Your task to perform on an android device: Open Google Chrome and open the bookmarks view Image 0: 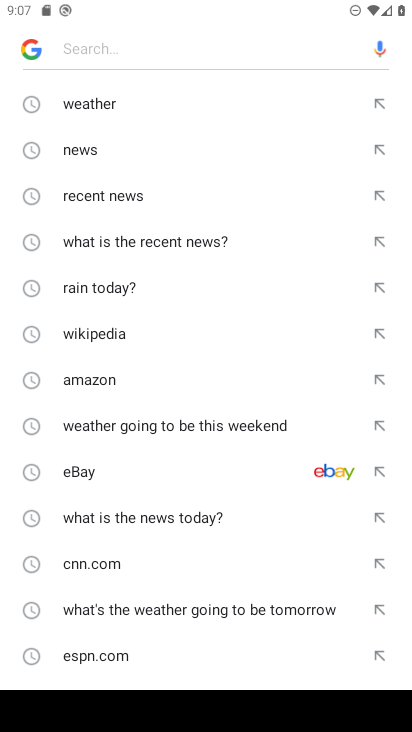
Step 0: press home button
Your task to perform on an android device: Open Google Chrome and open the bookmarks view Image 1: 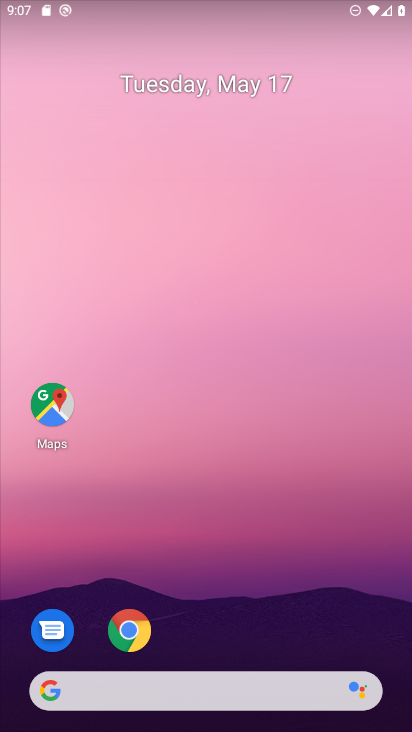
Step 1: drag from (340, 619) to (338, 167)
Your task to perform on an android device: Open Google Chrome and open the bookmarks view Image 2: 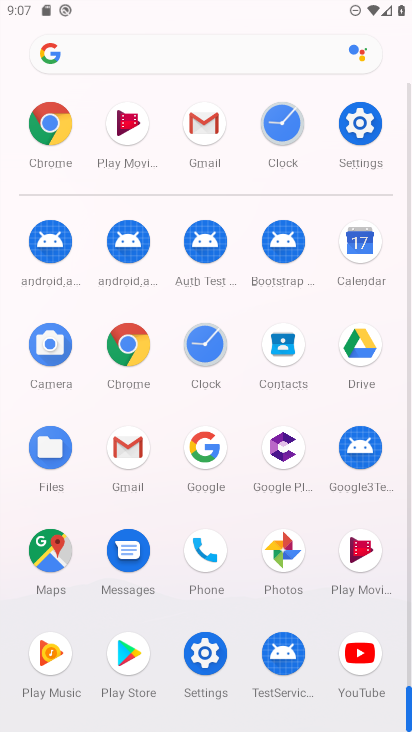
Step 2: click (51, 125)
Your task to perform on an android device: Open Google Chrome and open the bookmarks view Image 3: 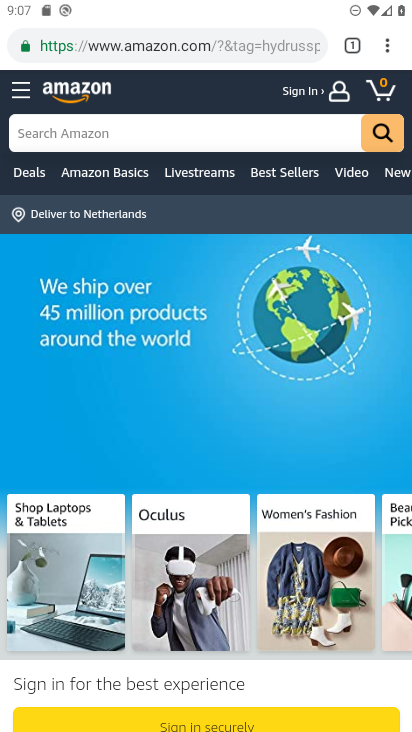
Step 3: click (387, 49)
Your task to perform on an android device: Open Google Chrome and open the bookmarks view Image 4: 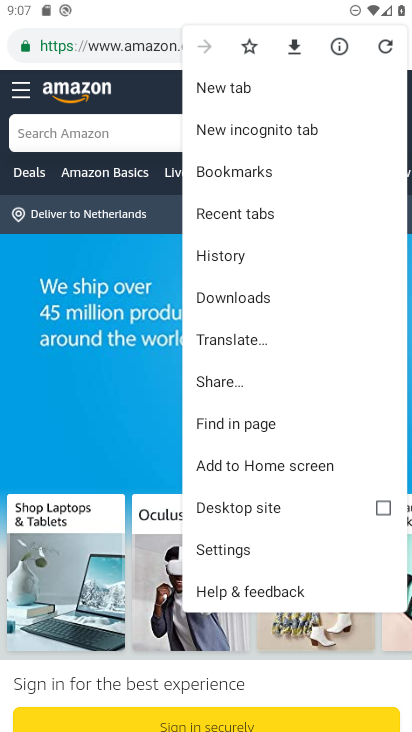
Step 4: click (273, 175)
Your task to perform on an android device: Open Google Chrome and open the bookmarks view Image 5: 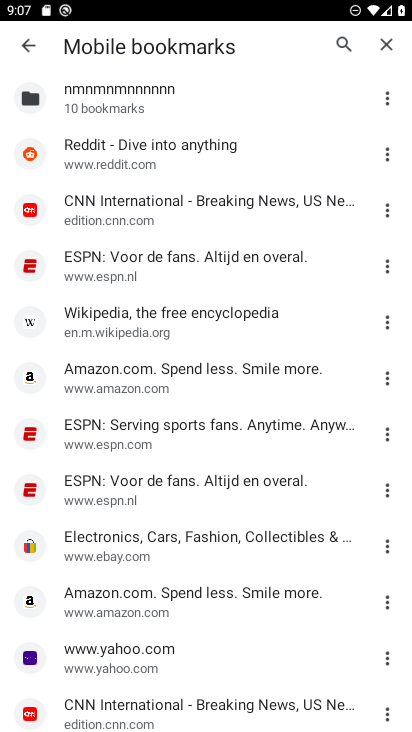
Step 5: task complete